Your task to perform on an android device: Show me popular games on the Play Store Image 0: 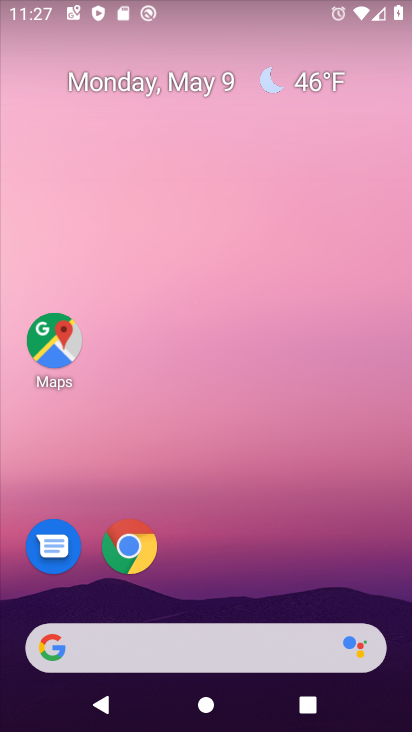
Step 0: drag from (334, 533) to (336, 5)
Your task to perform on an android device: Show me popular games on the Play Store Image 1: 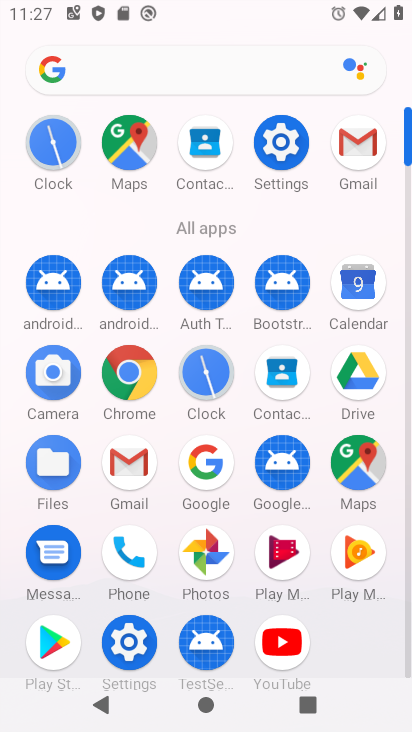
Step 1: click (55, 643)
Your task to perform on an android device: Show me popular games on the Play Store Image 2: 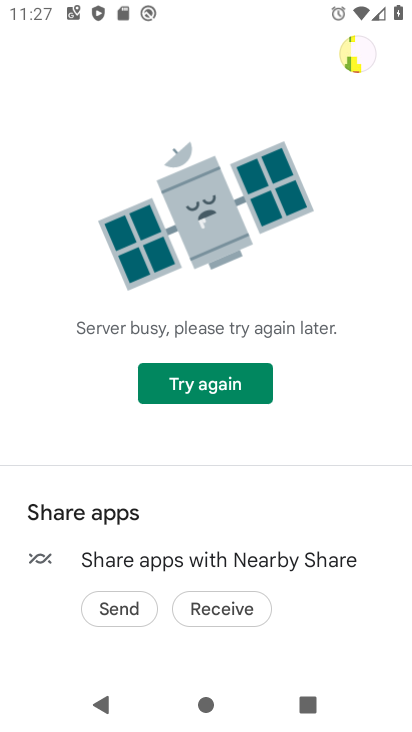
Step 2: task complete